Your task to perform on an android device: turn on location history Image 0: 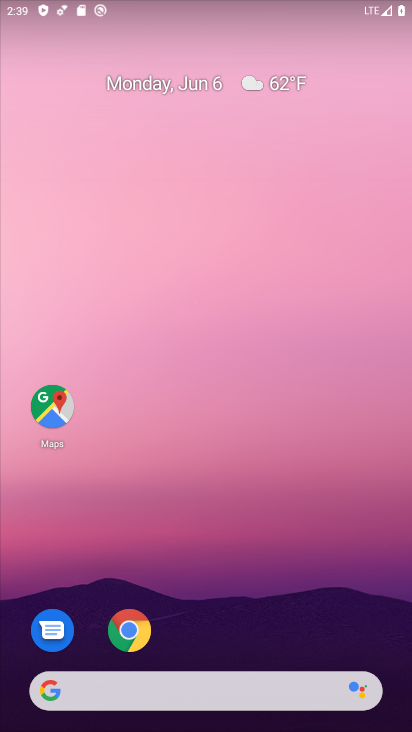
Step 0: press home button
Your task to perform on an android device: turn on location history Image 1: 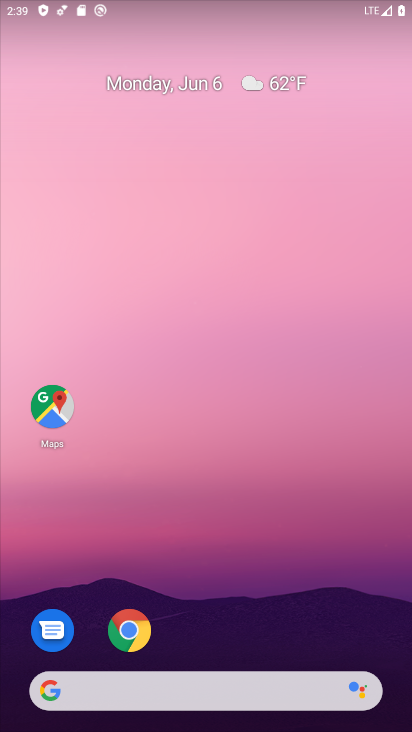
Step 1: drag from (398, 639) to (289, 8)
Your task to perform on an android device: turn on location history Image 2: 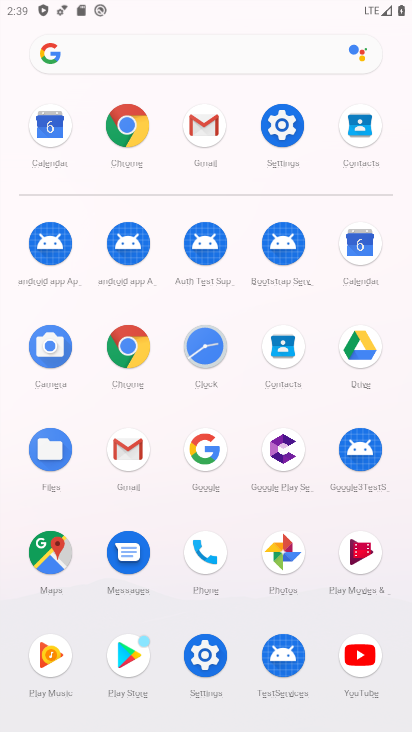
Step 2: click (56, 558)
Your task to perform on an android device: turn on location history Image 3: 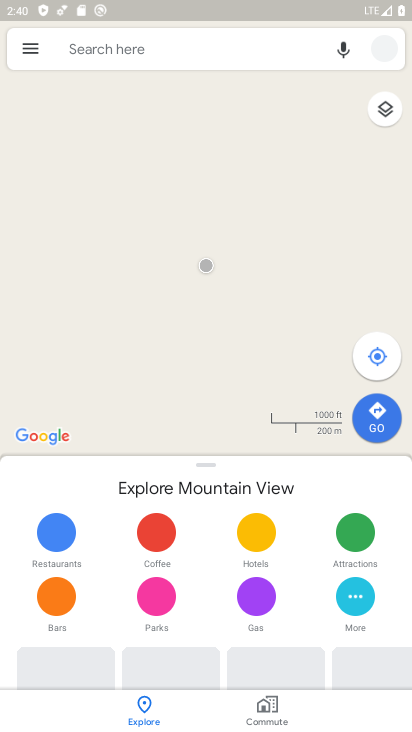
Step 3: click (24, 52)
Your task to perform on an android device: turn on location history Image 4: 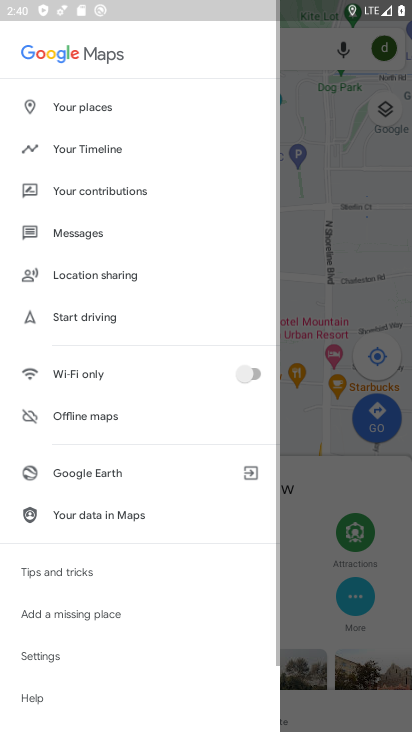
Step 4: click (90, 140)
Your task to perform on an android device: turn on location history Image 5: 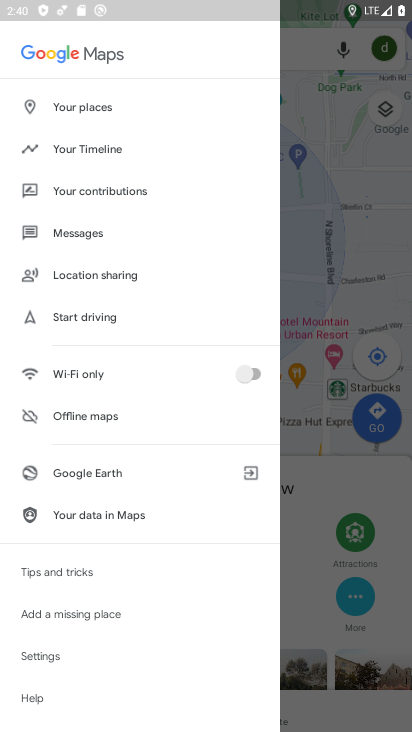
Step 5: click (98, 144)
Your task to perform on an android device: turn on location history Image 6: 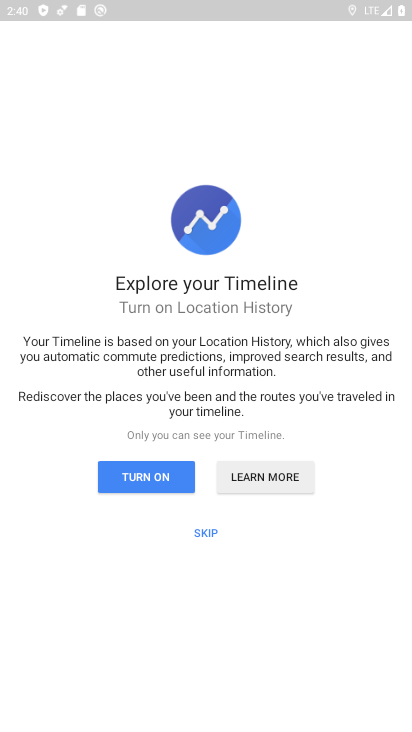
Step 6: click (126, 462)
Your task to perform on an android device: turn on location history Image 7: 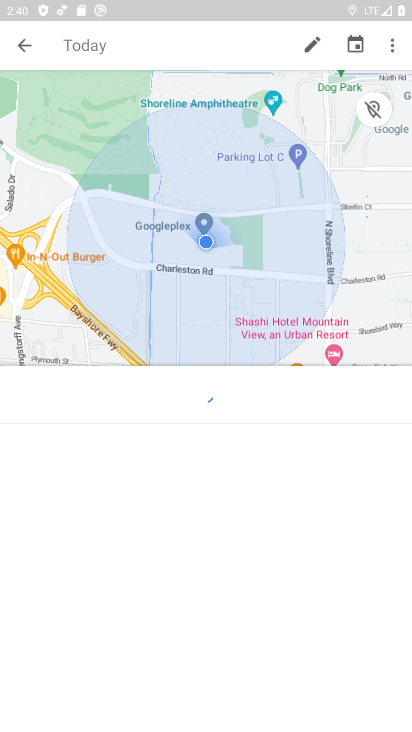
Step 7: click (130, 481)
Your task to perform on an android device: turn on location history Image 8: 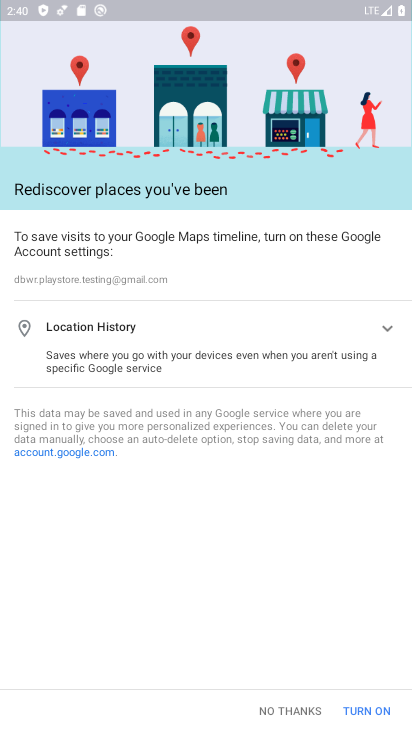
Step 8: click (367, 711)
Your task to perform on an android device: turn on location history Image 9: 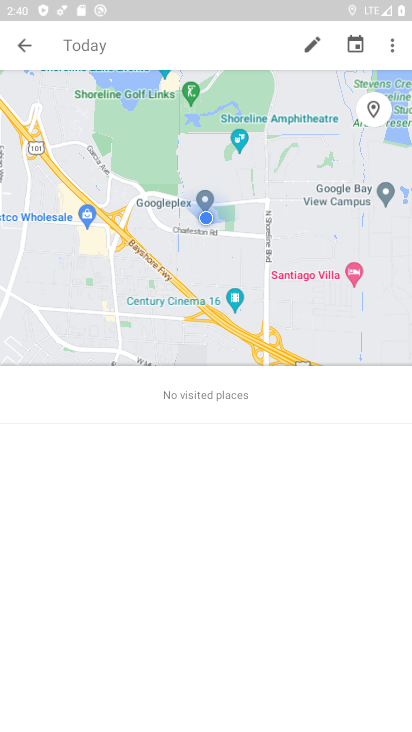
Step 9: task complete